Your task to perform on an android device: Go to location settings Image 0: 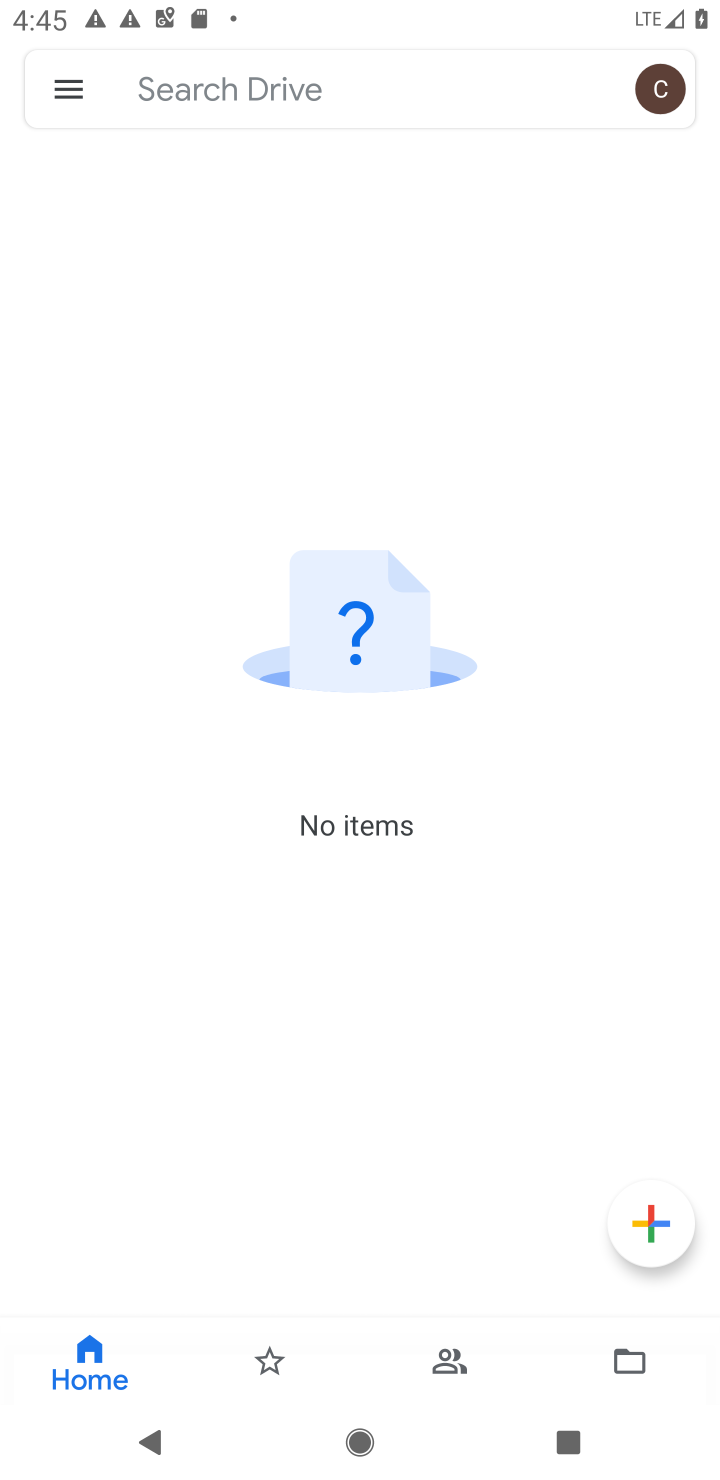
Step 0: press home button
Your task to perform on an android device: Go to location settings Image 1: 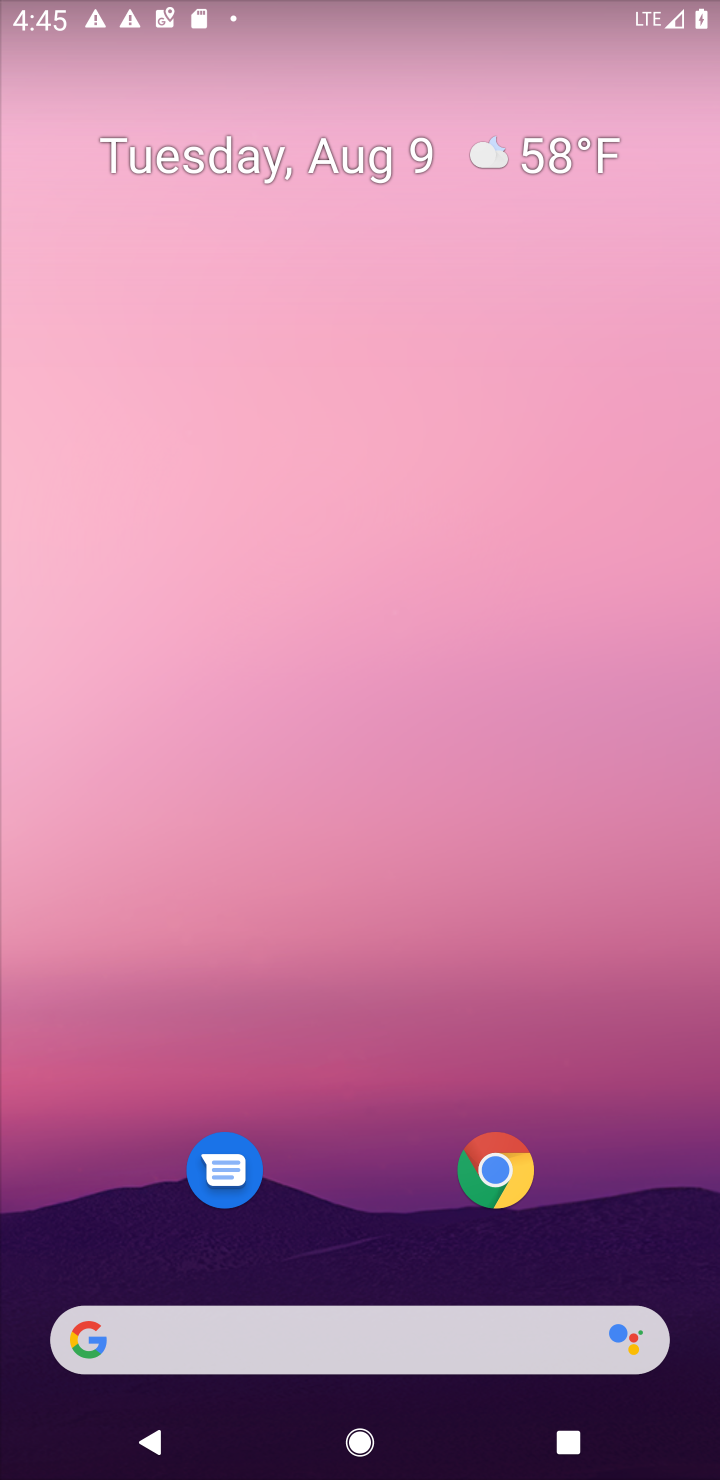
Step 1: drag from (361, 1160) to (303, 124)
Your task to perform on an android device: Go to location settings Image 2: 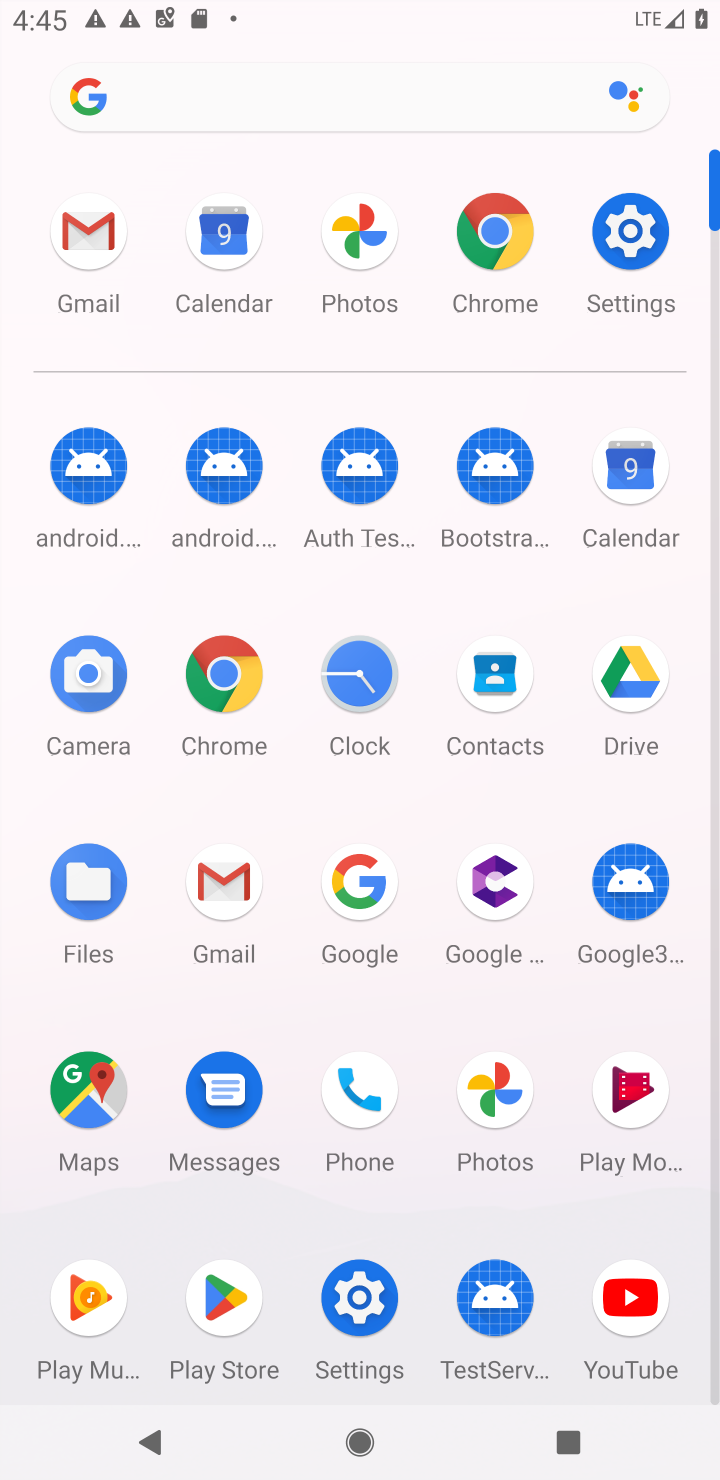
Step 2: click (618, 213)
Your task to perform on an android device: Go to location settings Image 3: 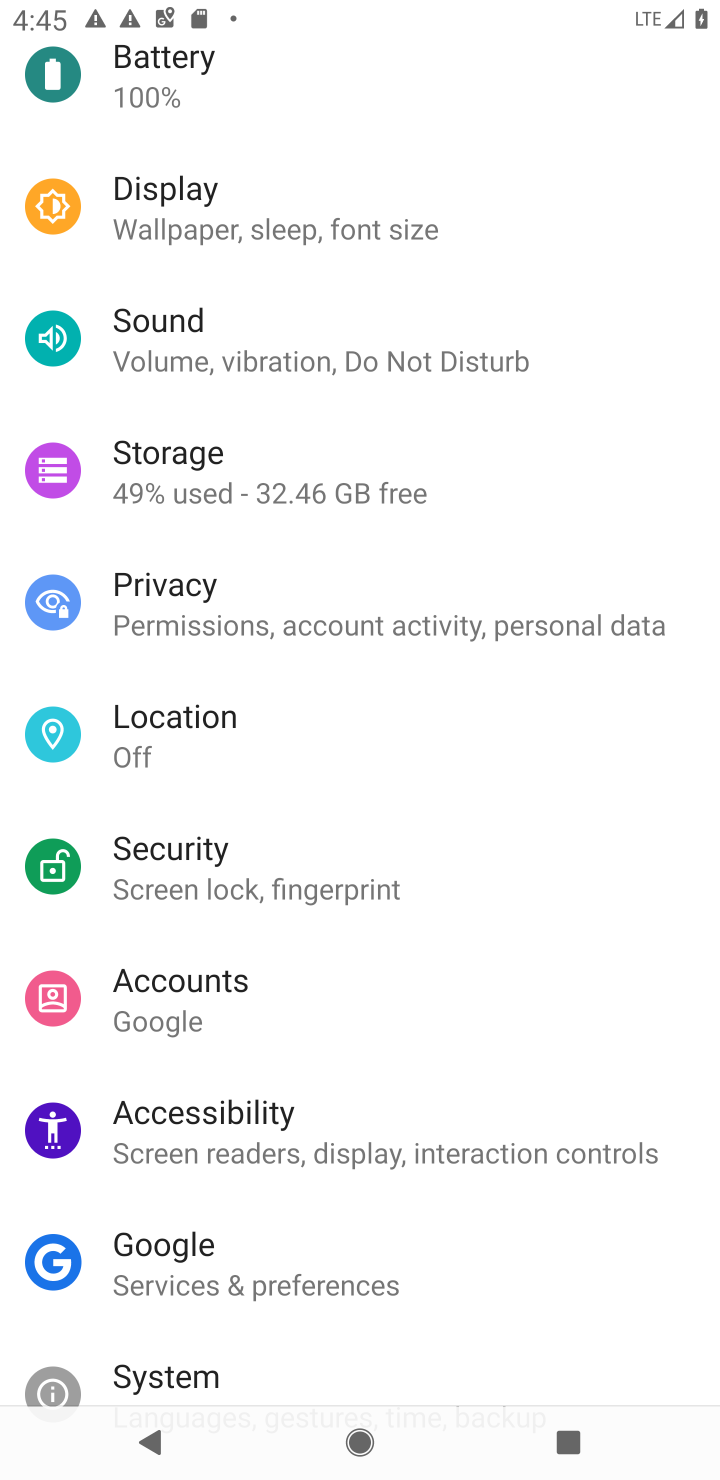
Step 3: click (165, 751)
Your task to perform on an android device: Go to location settings Image 4: 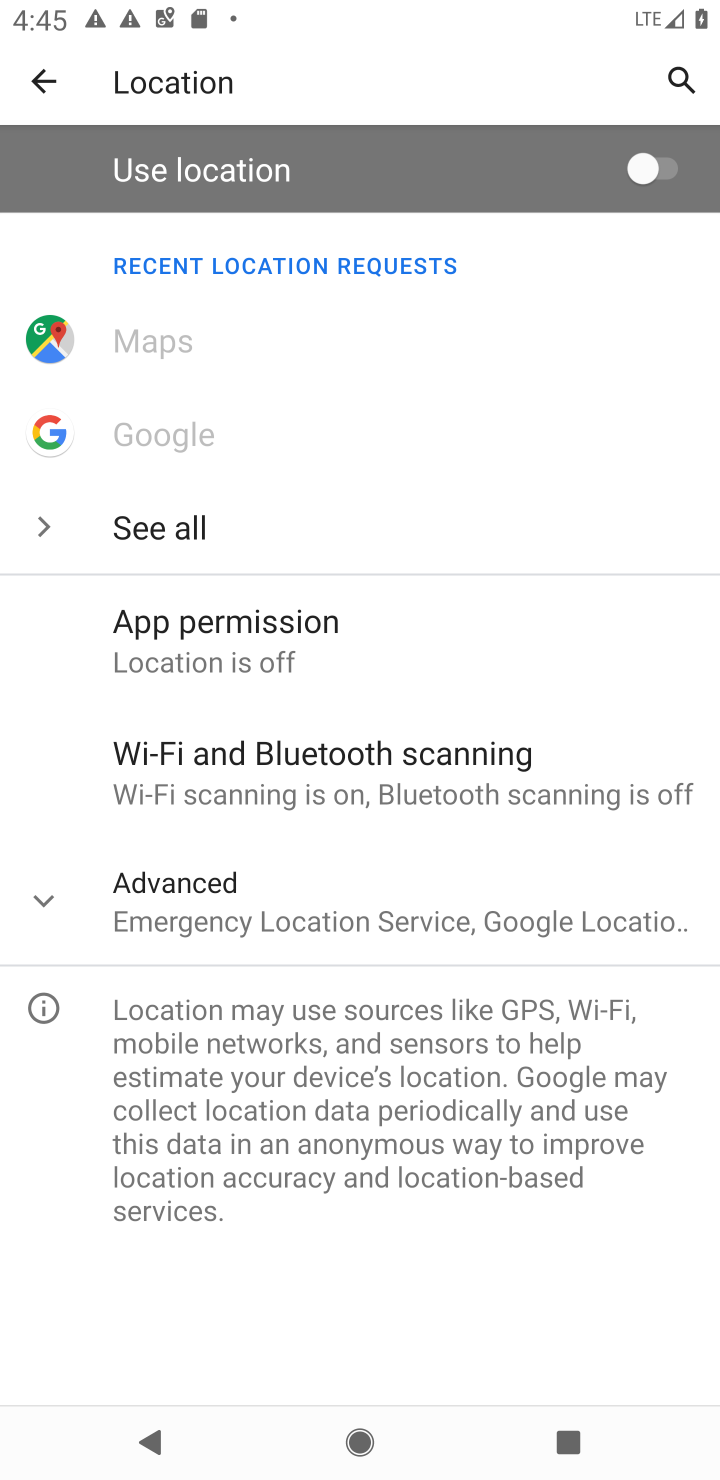
Step 4: task complete